Your task to perform on an android device: Go to ESPN.com Image 0: 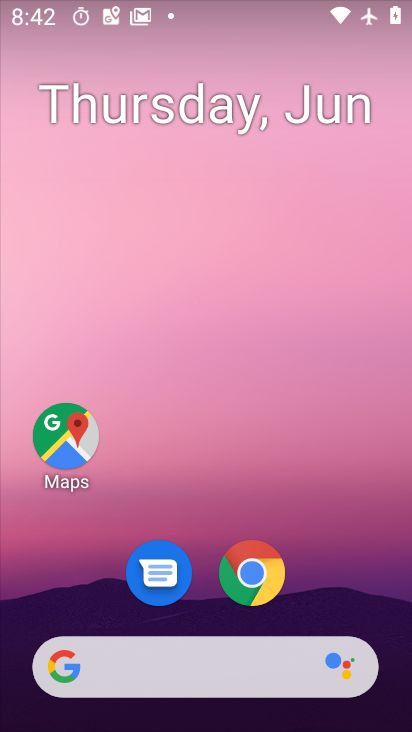
Step 0: click (271, 565)
Your task to perform on an android device: Go to ESPN.com Image 1: 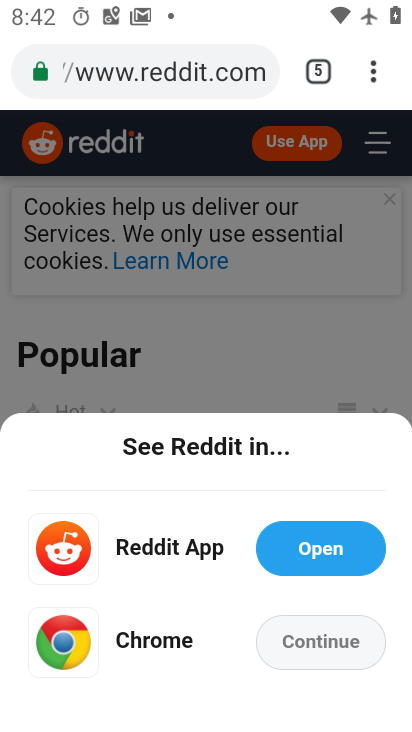
Step 1: click (368, 71)
Your task to perform on an android device: Go to ESPN.com Image 2: 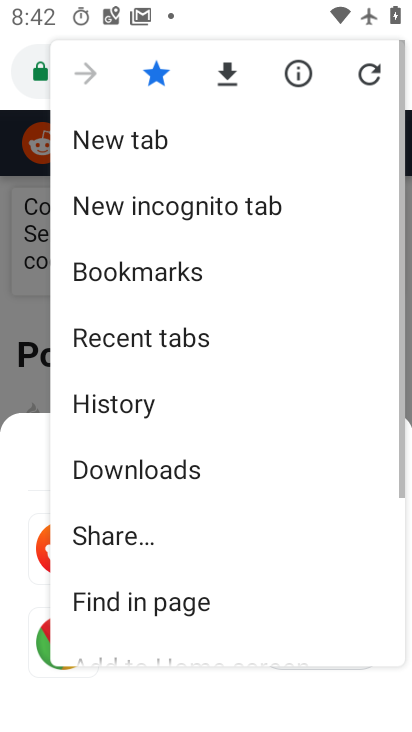
Step 2: click (180, 127)
Your task to perform on an android device: Go to ESPN.com Image 3: 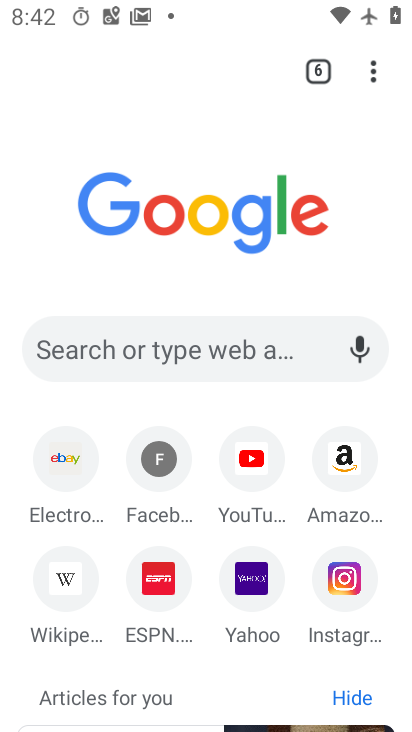
Step 3: click (170, 576)
Your task to perform on an android device: Go to ESPN.com Image 4: 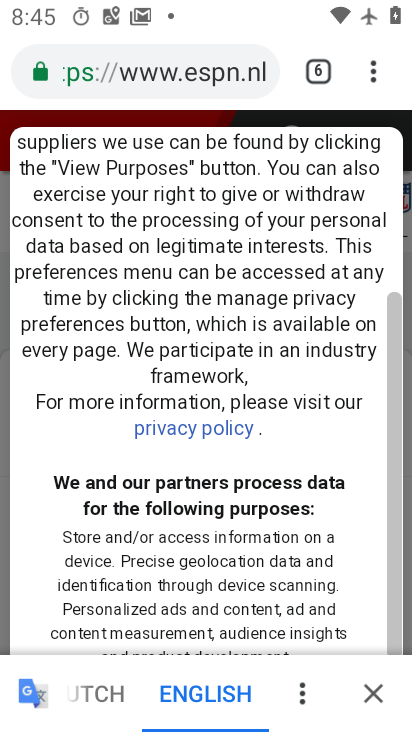
Step 4: task complete